Your task to perform on an android device: Go to display settings Image 0: 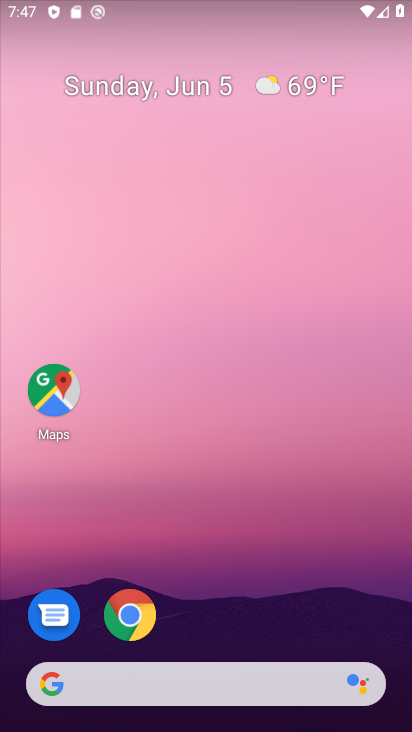
Step 0: drag from (207, 634) to (189, 270)
Your task to perform on an android device: Go to display settings Image 1: 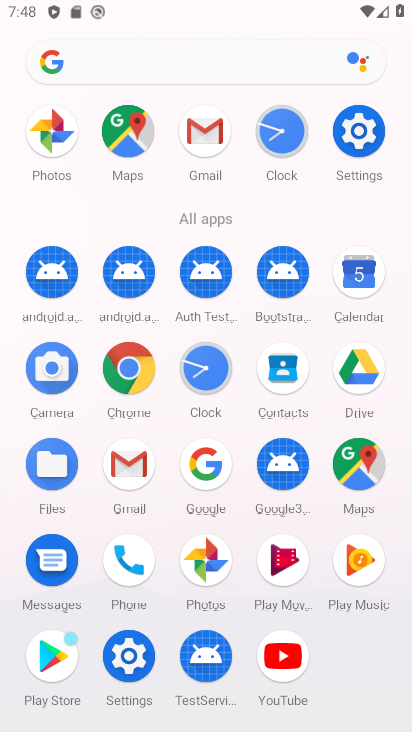
Step 1: click (359, 139)
Your task to perform on an android device: Go to display settings Image 2: 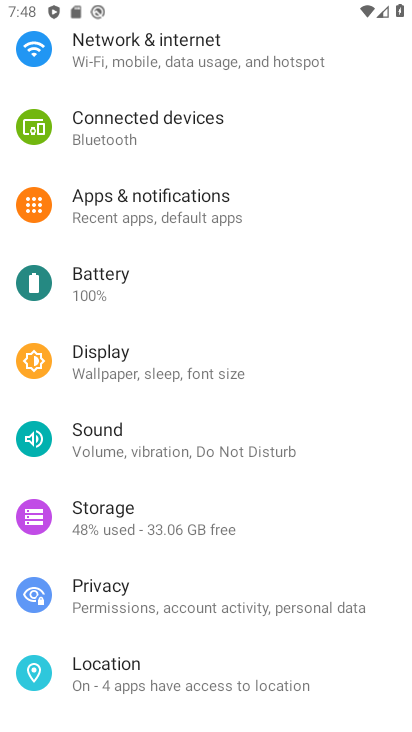
Step 2: click (79, 374)
Your task to perform on an android device: Go to display settings Image 3: 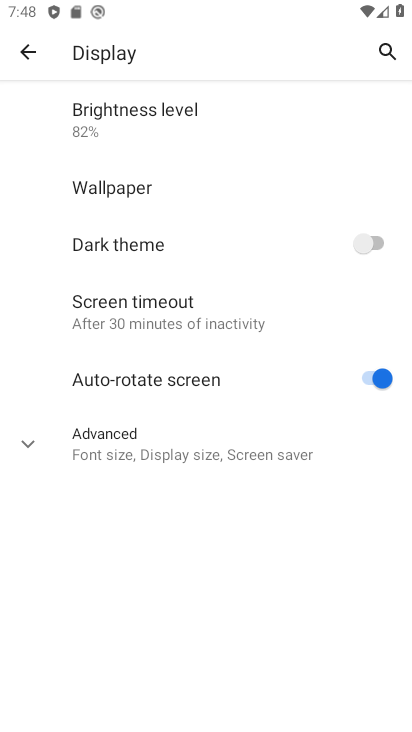
Step 3: task complete